Your task to perform on an android device: empty trash in the gmail app Image 0: 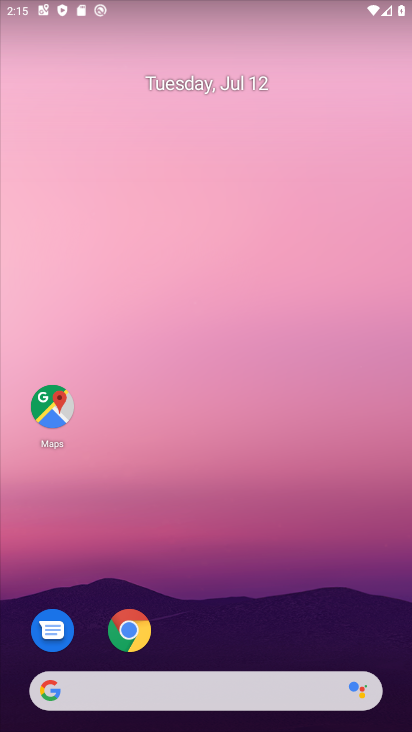
Step 0: drag from (395, 647) to (328, 77)
Your task to perform on an android device: empty trash in the gmail app Image 1: 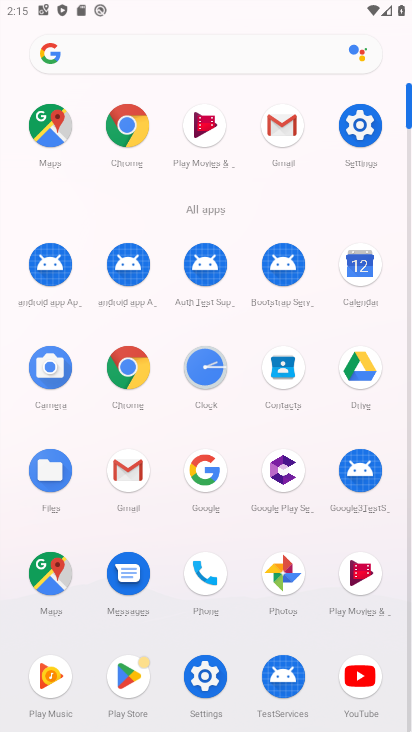
Step 1: click (126, 466)
Your task to perform on an android device: empty trash in the gmail app Image 2: 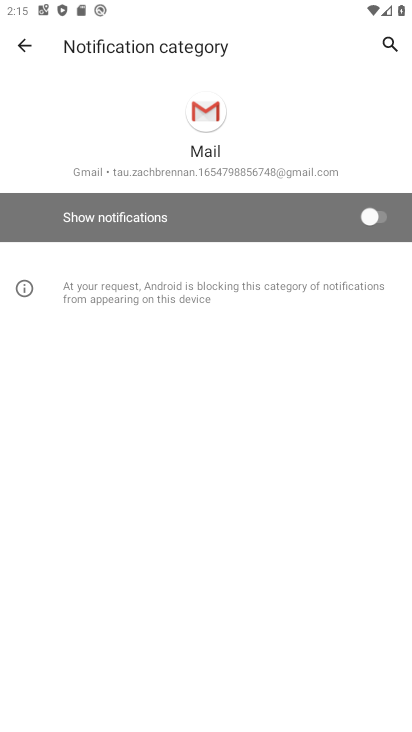
Step 2: press back button
Your task to perform on an android device: empty trash in the gmail app Image 3: 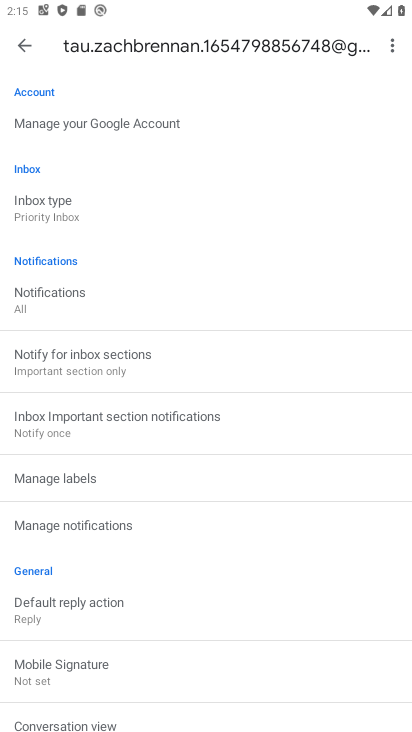
Step 3: press back button
Your task to perform on an android device: empty trash in the gmail app Image 4: 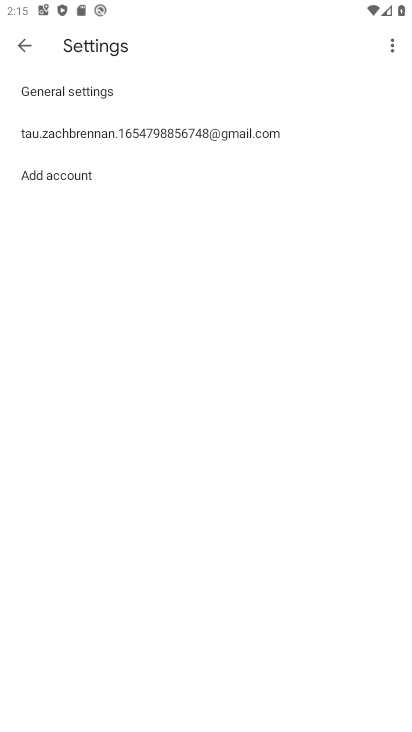
Step 4: press back button
Your task to perform on an android device: empty trash in the gmail app Image 5: 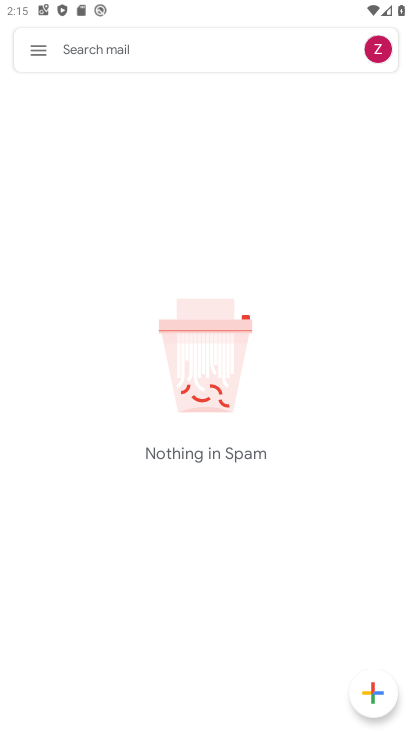
Step 5: click (37, 53)
Your task to perform on an android device: empty trash in the gmail app Image 6: 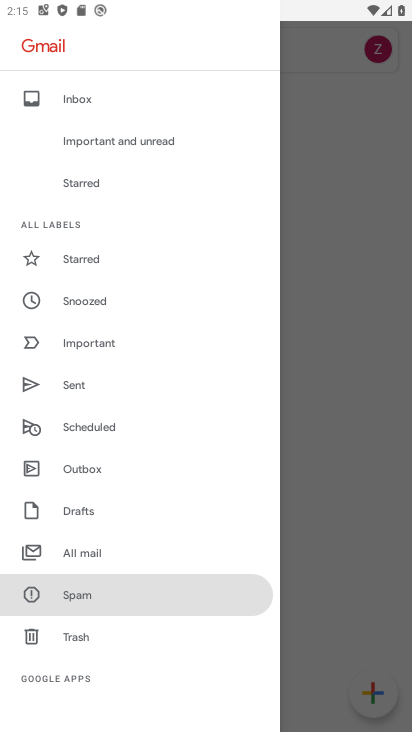
Step 6: click (67, 635)
Your task to perform on an android device: empty trash in the gmail app Image 7: 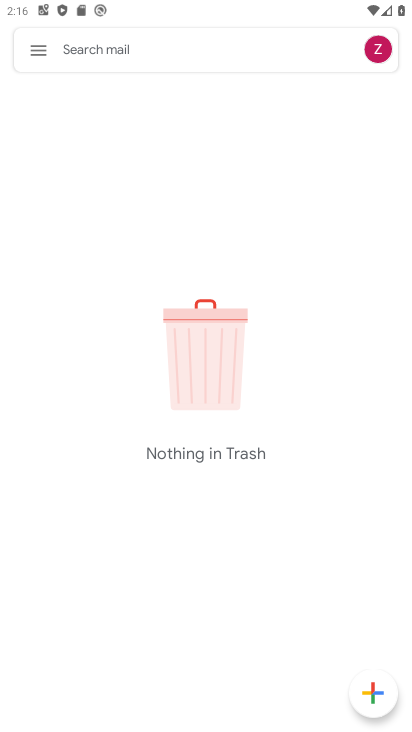
Step 7: task complete